Your task to perform on an android device: Open Reddit.com Image 0: 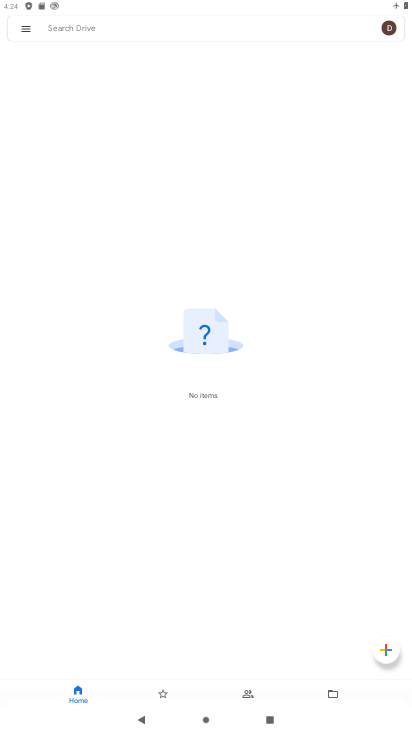
Step 0: press home button
Your task to perform on an android device: Open Reddit.com Image 1: 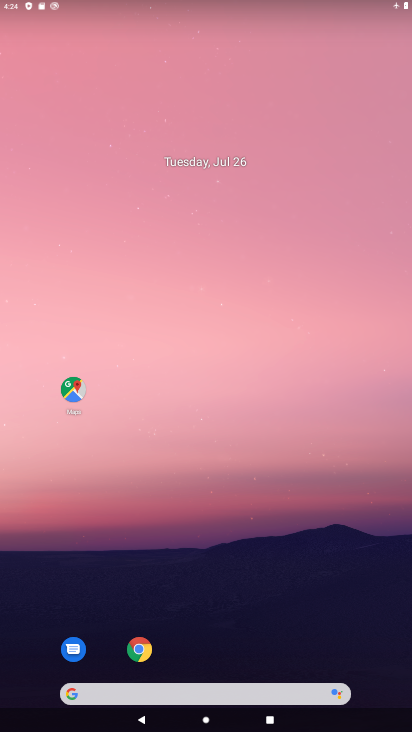
Step 1: click (146, 661)
Your task to perform on an android device: Open Reddit.com Image 2: 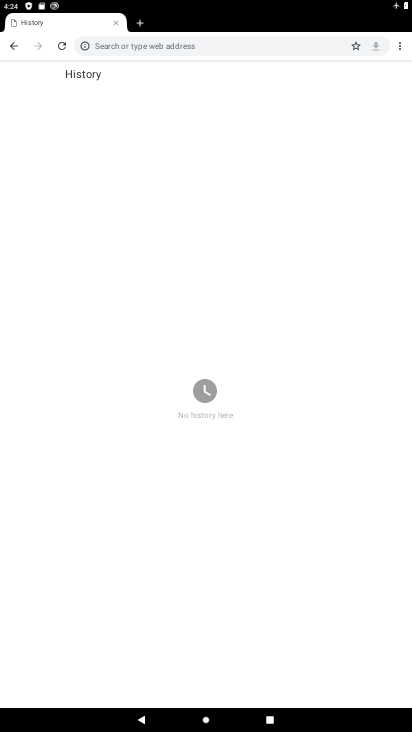
Step 2: click (134, 20)
Your task to perform on an android device: Open Reddit.com Image 3: 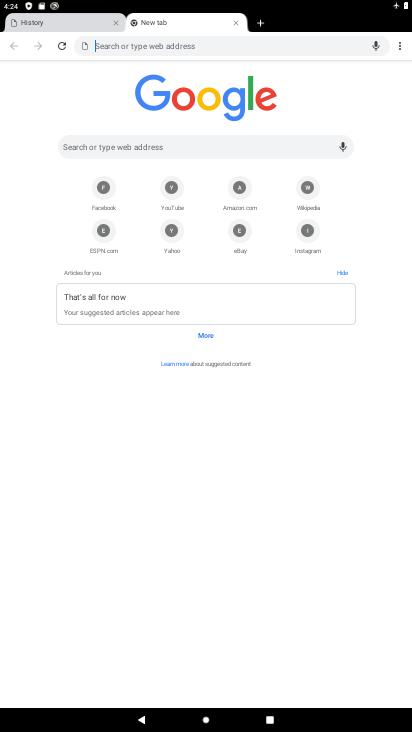
Step 3: type "Reddit.com"
Your task to perform on an android device: Open Reddit.com Image 4: 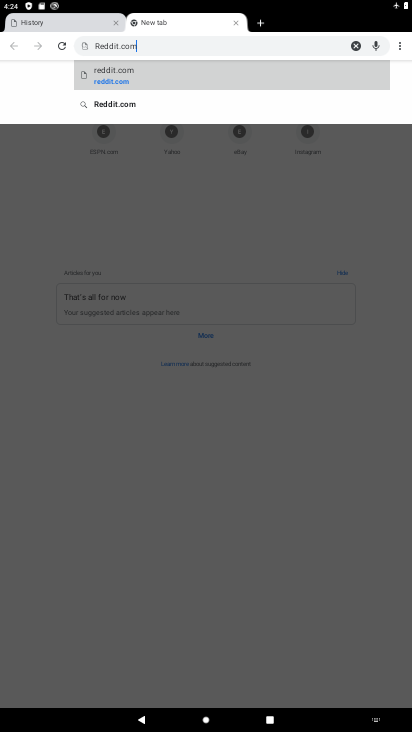
Step 4: type ""
Your task to perform on an android device: Open Reddit.com Image 5: 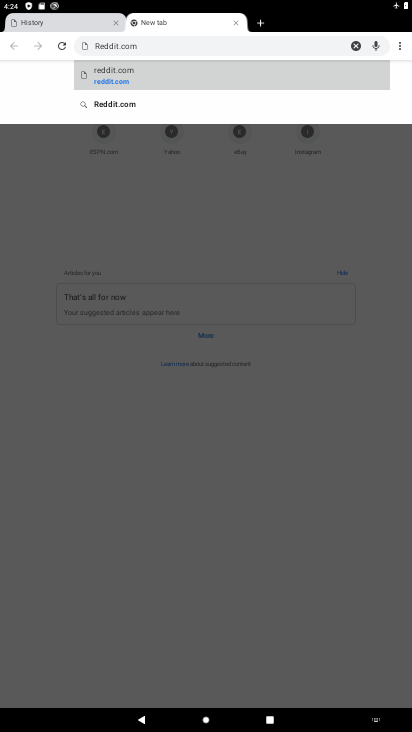
Step 5: click (111, 70)
Your task to perform on an android device: Open Reddit.com Image 6: 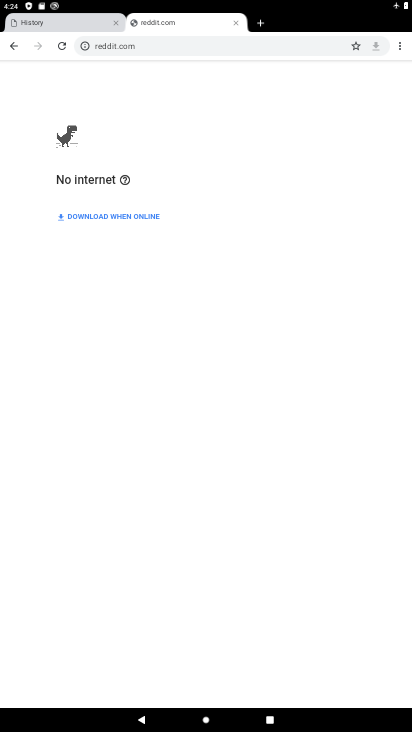
Step 6: task complete